Your task to perform on an android device: open chrome and create a bookmark for the current page Image 0: 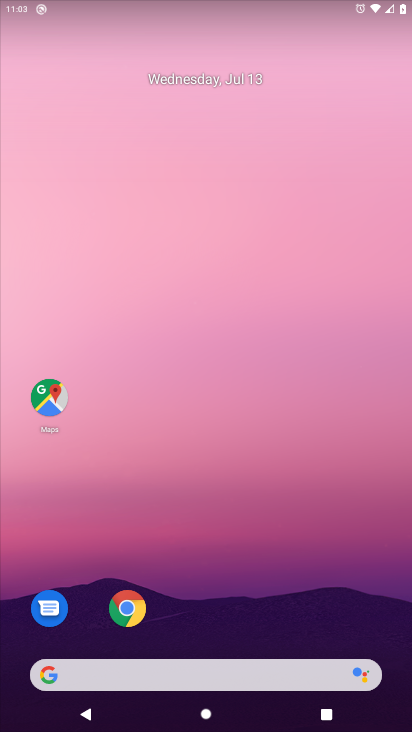
Step 0: click (110, 667)
Your task to perform on an android device: open chrome and create a bookmark for the current page Image 1: 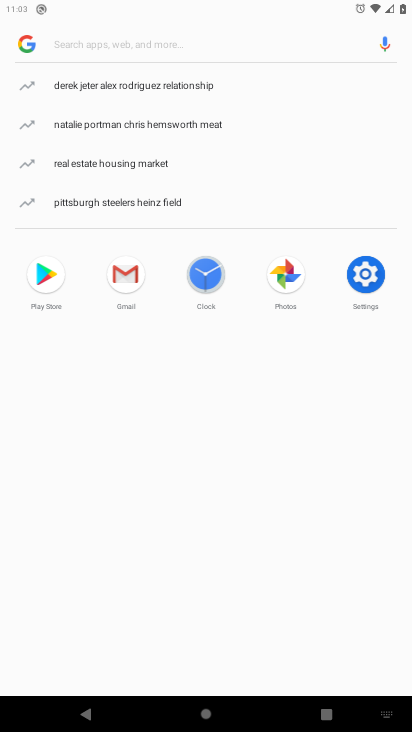
Step 1: press home button
Your task to perform on an android device: open chrome and create a bookmark for the current page Image 2: 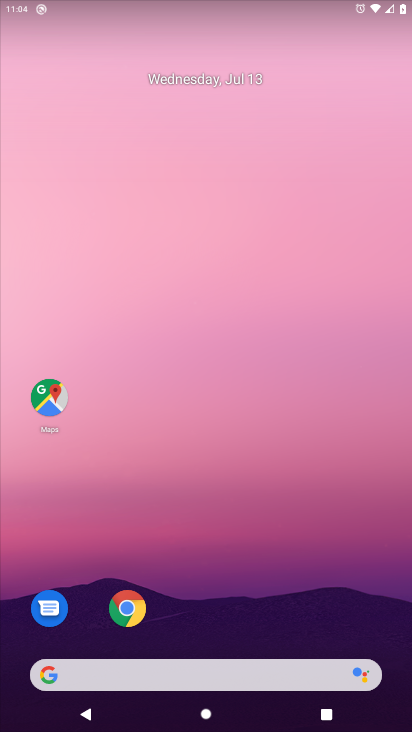
Step 2: click (123, 601)
Your task to perform on an android device: open chrome and create a bookmark for the current page Image 3: 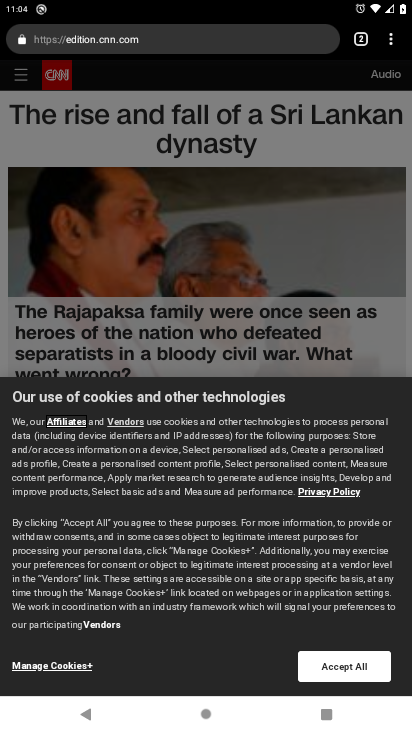
Step 3: click (384, 36)
Your task to perform on an android device: open chrome and create a bookmark for the current page Image 4: 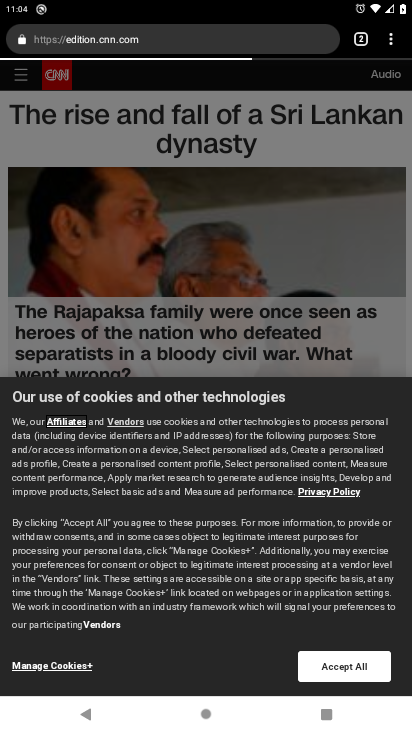
Step 4: click (389, 38)
Your task to perform on an android device: open chrome and create a bookmark for the current page Image 5: 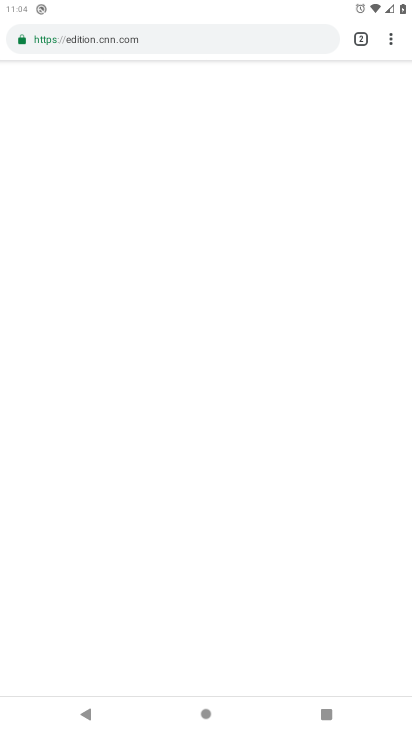
Step 5: click (393, 39)
Your task to perform on an android device: open chrome and create a bookmark for the current page Image 6: 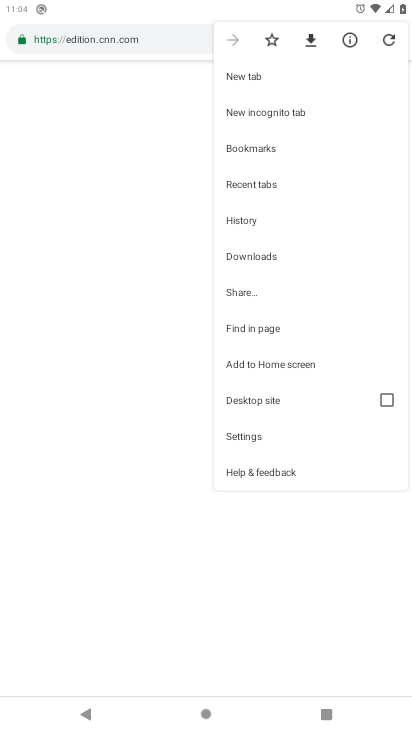
Step 6: click (269, 46)
Your task to perform on an android device: open chrome and create a bookmark for the current page Image 7: 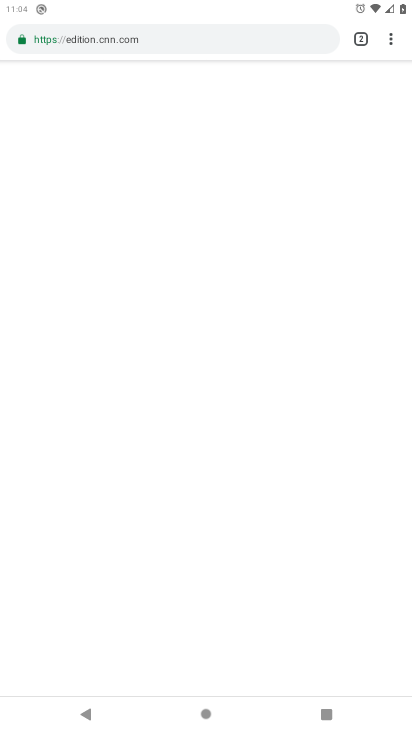
Step 7: click (391, 38)
Your task to perform on an android device: open chrome and create a bookmark for the current page Image 8: 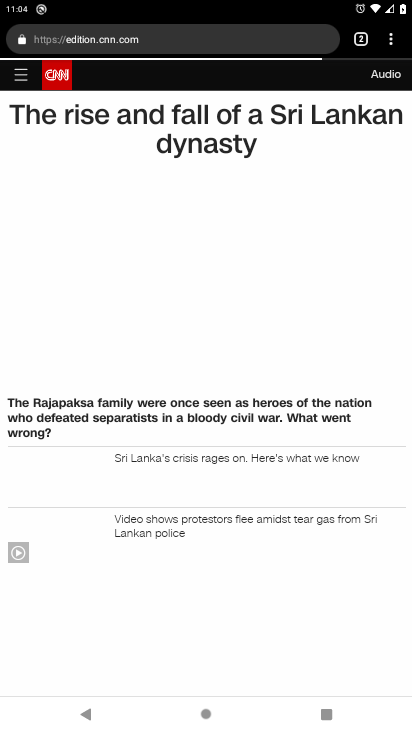
Step 8: click (385, 36)
Your task to perform on an android device: open chrome and create a bookmark for the current page Image 9: 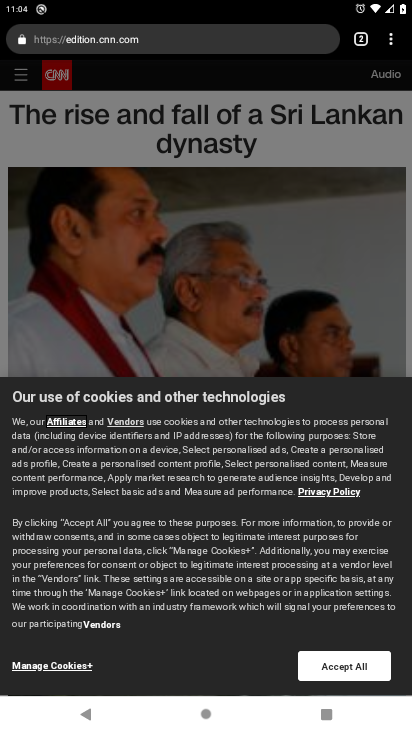
Step 9: click (396, 39)
Your task to perform on an android device: open chrome and create a bookmark for the current page Image 10: 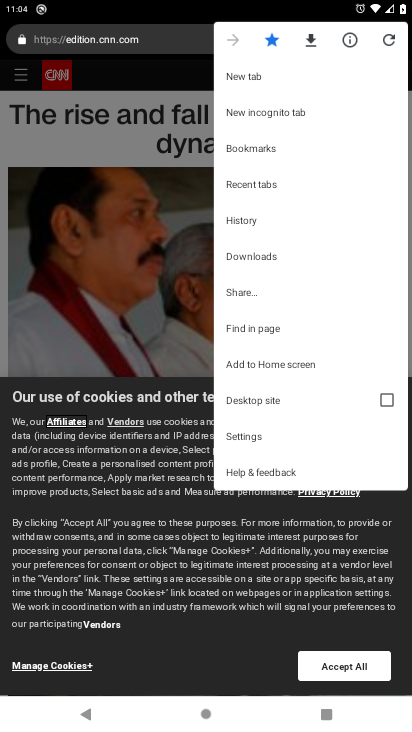
Step 10: task complete